Your task to perform on an android device: see creations saved in the google photos Image 0: 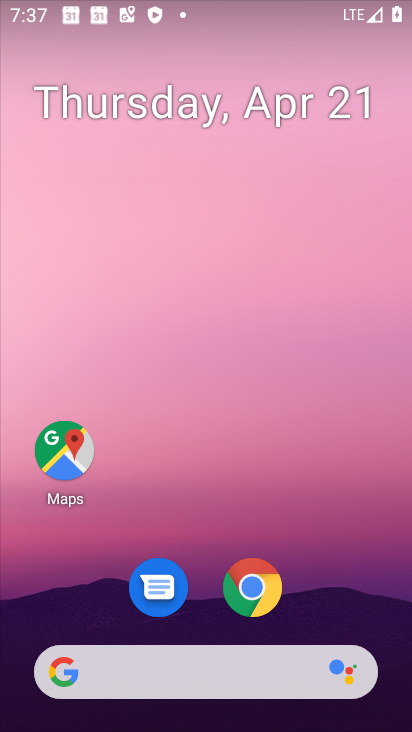
Step 0: drag from (331, 213) to (326, 170)
Your task to perform on an android device: see creations saved in the google photos Image 1: 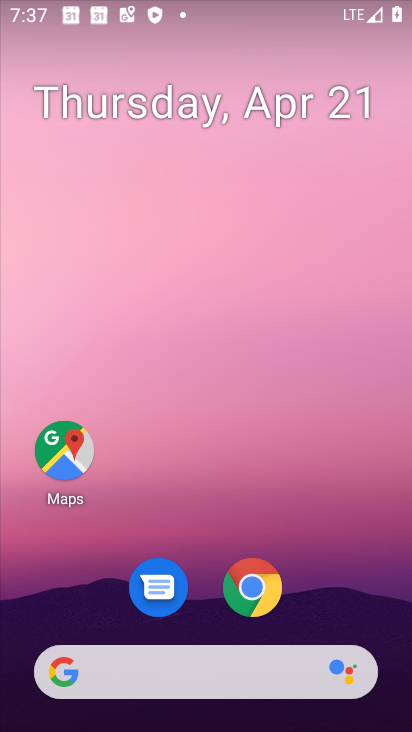
Step 1: drag from (356, 394) to (344, 96)
Your task to perform on an android device: see creations saved in the google photos Image 2: 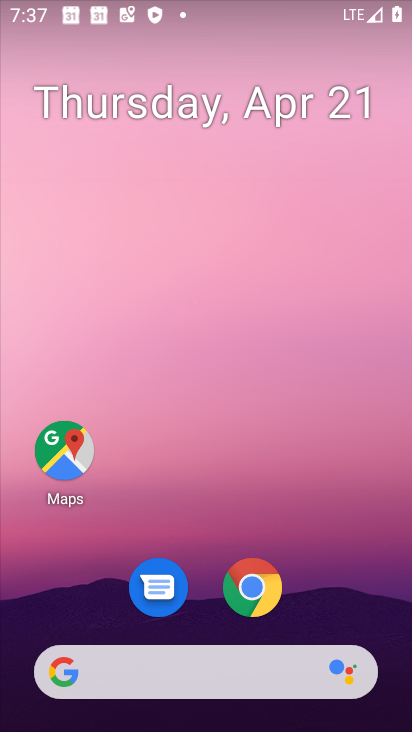
Step 2: drag from (391, 610) to (342, 145)
Your task to perform on an android device: see creations saved in the google photos Image 3: 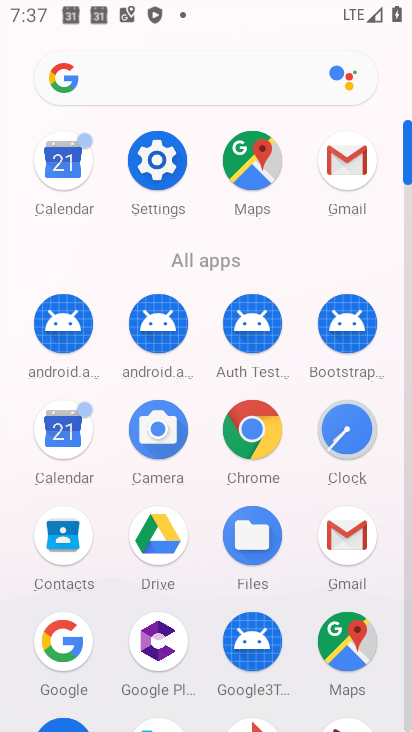
Step 3: drag from (406, 123) to (410, 21)
Your task to perform on an android device: see creations saved in the google photos Image 4: 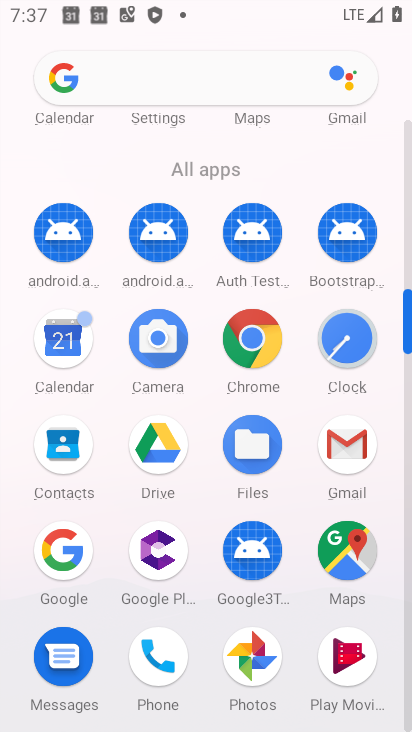
Step 4: click (250, 646)
Your task to perform on an android device: see creations saved in the google photos Image 5: 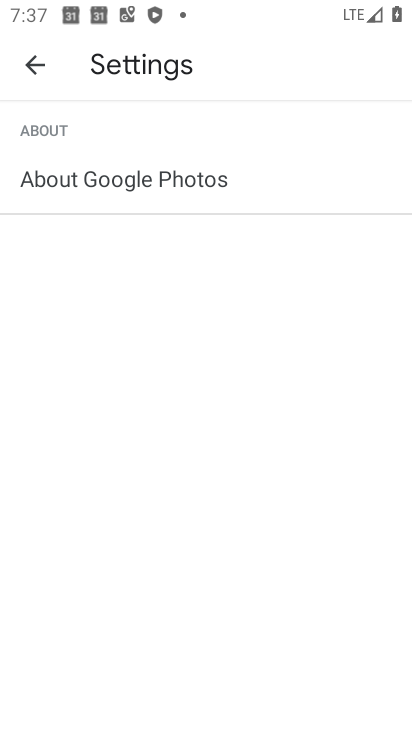
Step 5: click (22, 62)
Your task to perform on an android device: see creations saved in the google photos Image 6: 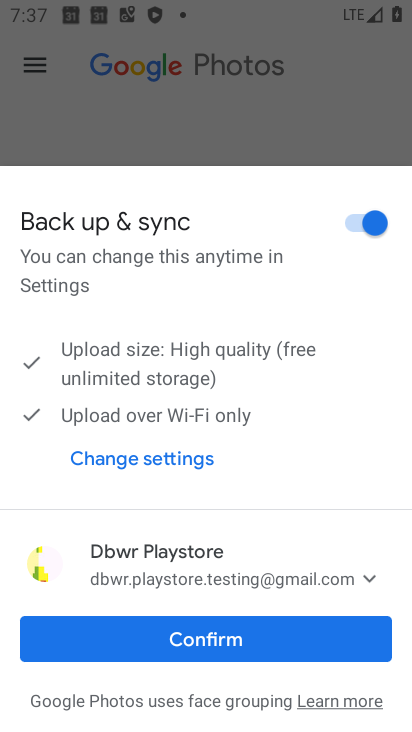
Step 6: click (240, 645)
Your task to perform on an android device: see creations saved in the google photos Image 7: 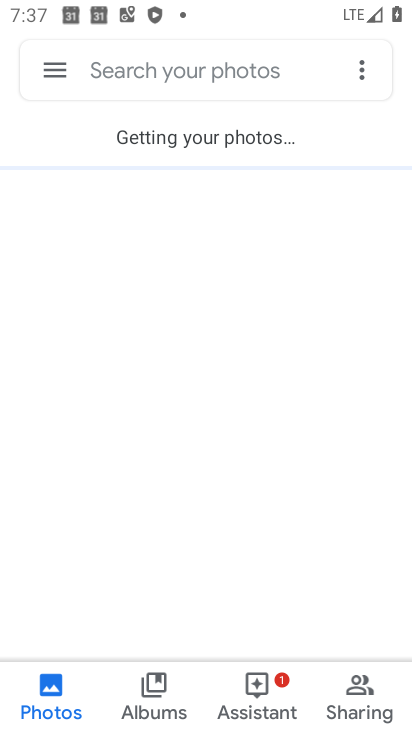
Step 7: click (42, 696)
Your task to perform on an android device: see creations saved in the google photos Image 8: 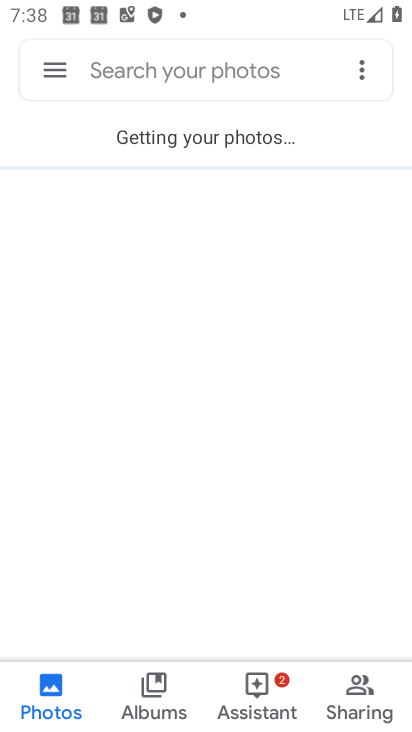
Step 8: click (47, 690)
Your task to perform on an android device: see creations saved in the google photos Image 9: 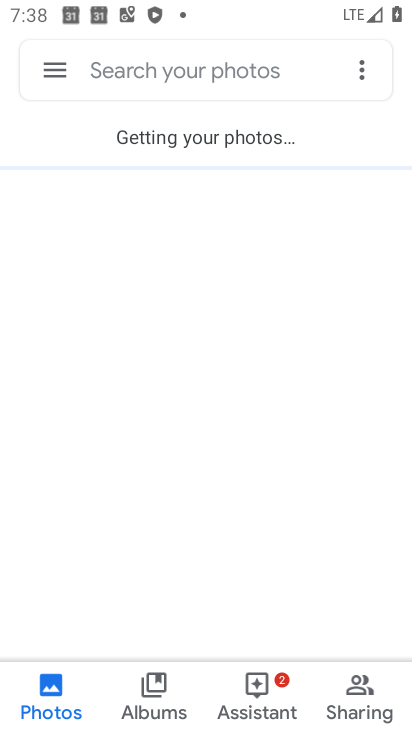
Step 9: click (45, 693)
Your task to perform on an android device: see creations saved in the google photos Image 10: 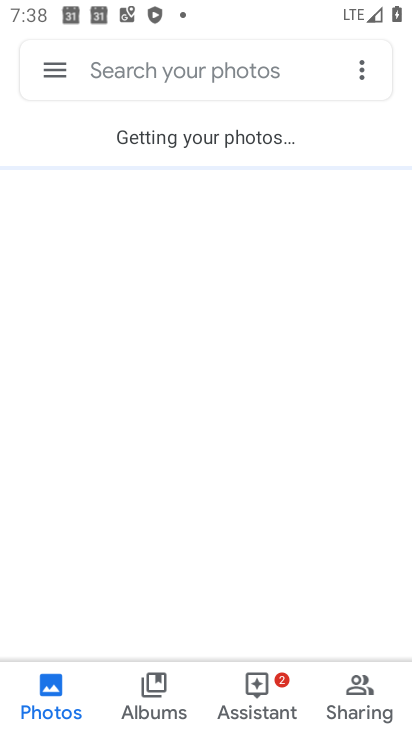
Step 10: click (45, 693)
Your task to perform on an android device: see creations saved in the google photos Image 11: 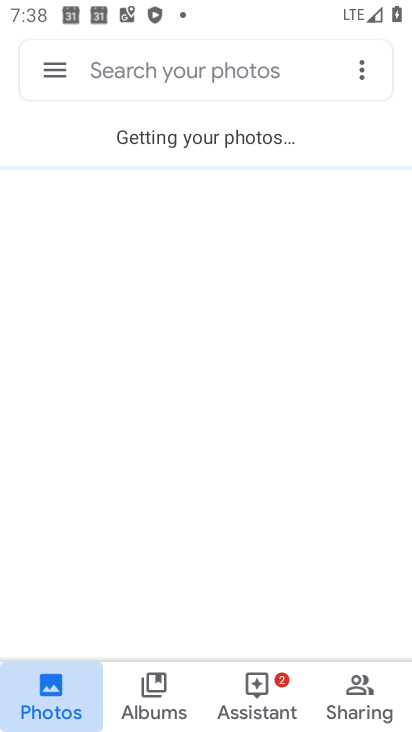
Step 11: click (45, 693)
Your task to perform on an android device: see creations saved in the google photos Image 12: 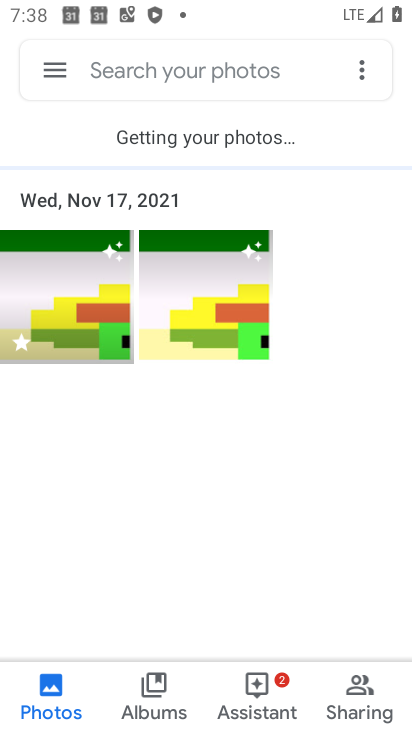
Step 12: click (61, 301)
Your task to perform on an android device: see creations saved in the google photos Image 13: 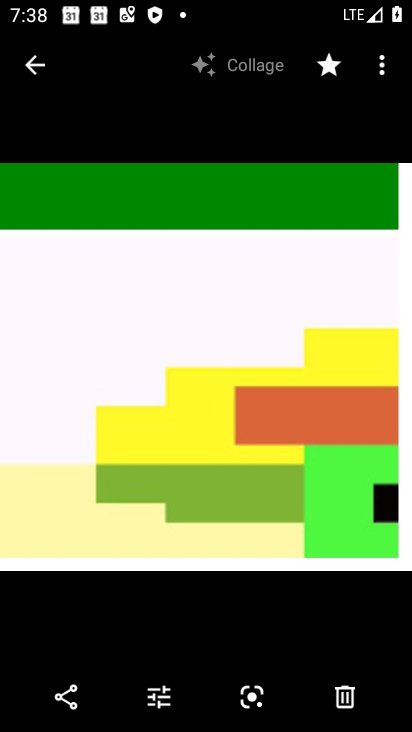
Step 13: click (35, 67)
Your task to perform on an android device: see creations saved in the google photos Image 14: 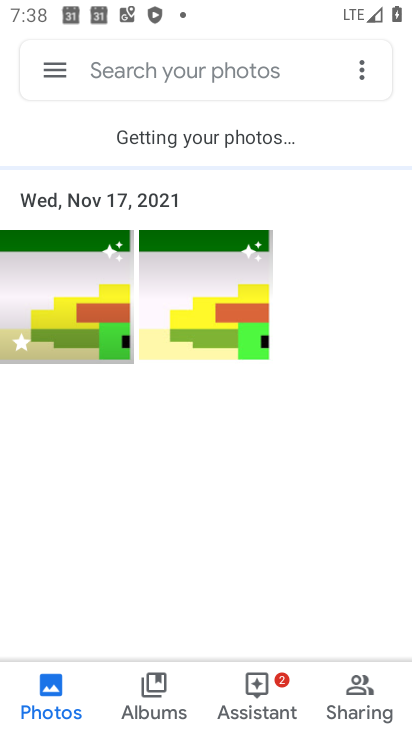
Step 14: click (199, 297)
Your task to perform on an android device: see creations saved in the google photos Image 15: 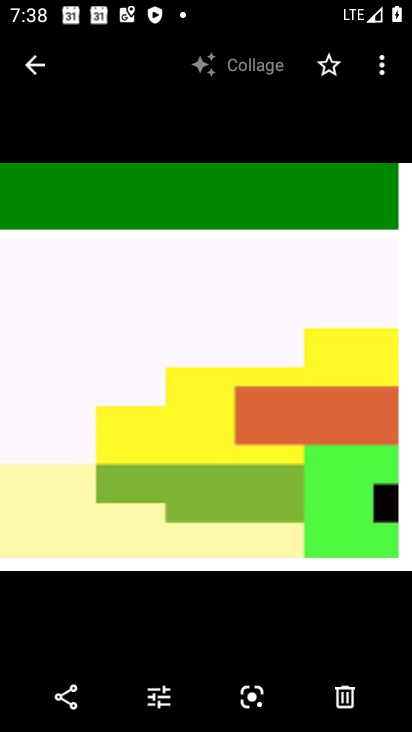
Step 15: click (29, 66)
Your task to perform on an android device: see creations saved in the google photos Image 16: 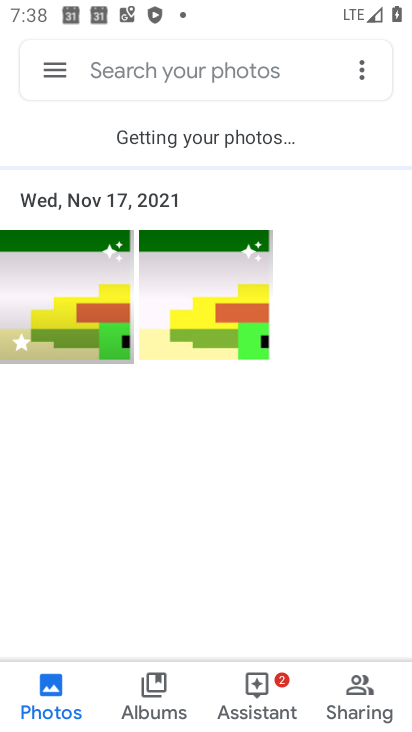
Step 16: task complete